Your task to perform on an android device: Go to Wikipedia Image 0: 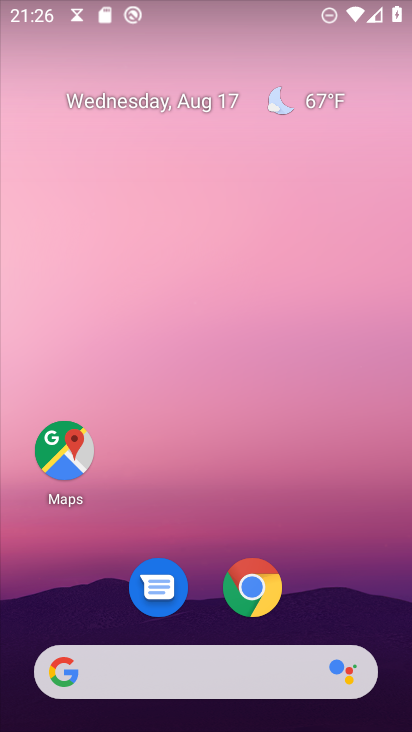
Step 0: click (106, 675)
Your task to perform on an android device: Go to Wikipedia Image 1: 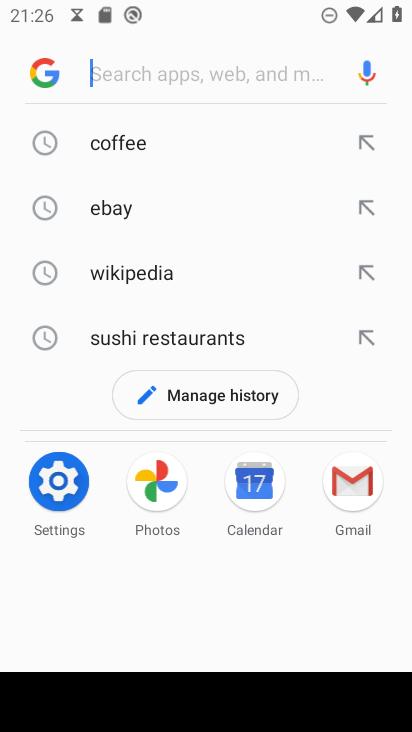
Step 1: type "Wikipedia"
Your task to perform on an android device: Go to Wikipedia Image 2: 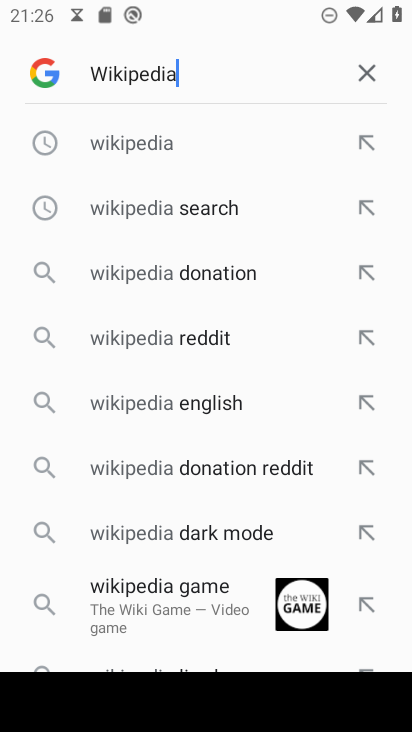
Step 2: click (149, 128)
Your task to perform on an android device: Go to Wikipedia Image 3: 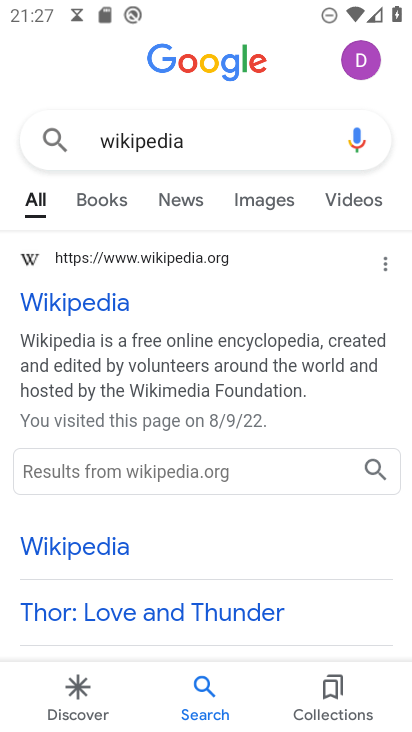
Step 3: task complete